Your task to perform on an android device: show emergency info Image 0: 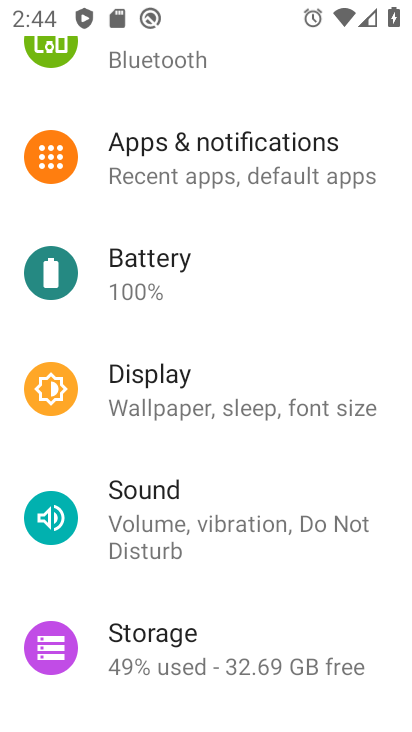
Step 0: drag from (243, 565) to (256, 5)
Your task to perform on an android device: show emergency info Image 1: 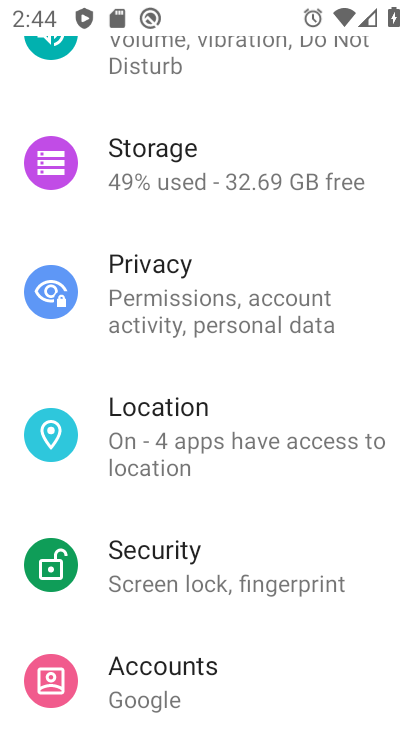
Step 1: drag from (341, 621) to (339, 418)
Your task to perform on an android device: show emergency info Image 2: 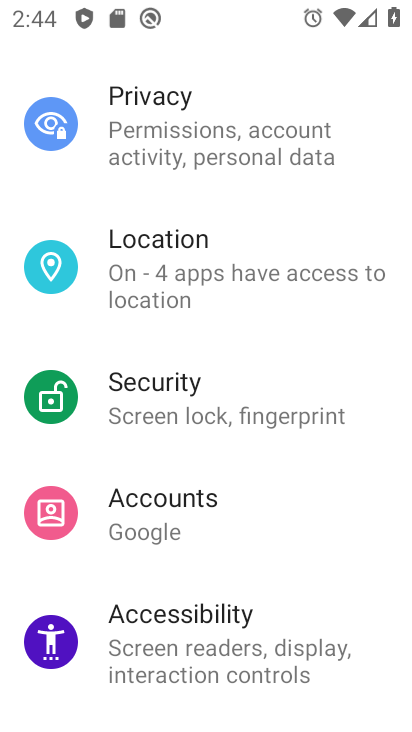
Step 2: click (339, 418)
Your task to perform on an android device: show emergency info Image 3: 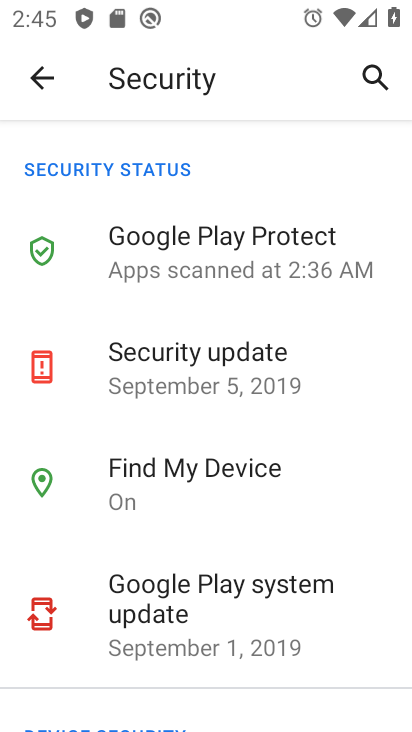
Step 3: task complete